Your task to perform on an android device: Go to accessibility settings Image 0: 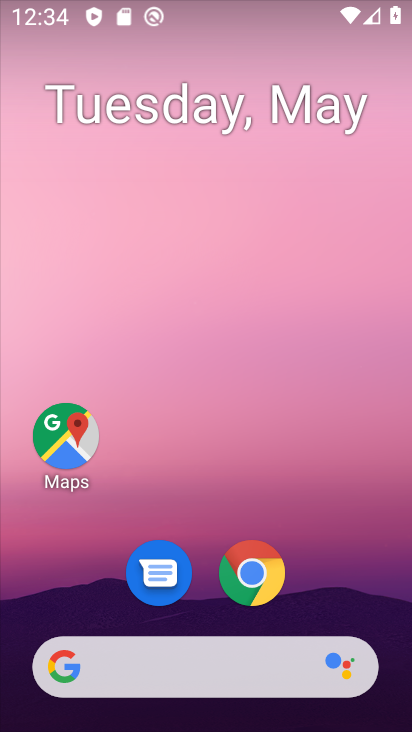
Step 0: drag from (341, 481) to (278, 80)
Your task to perform on an android device: Go to accessibility settings Image 1: 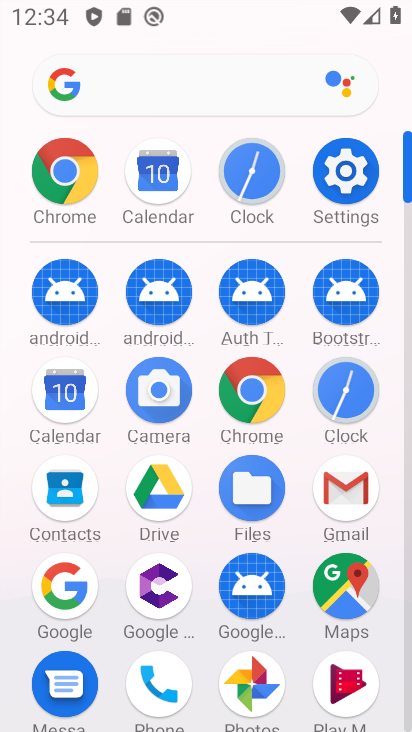
Step 1: click (357, 177)
Your task to perform on an android device: Go to accessibility settings Image 2: 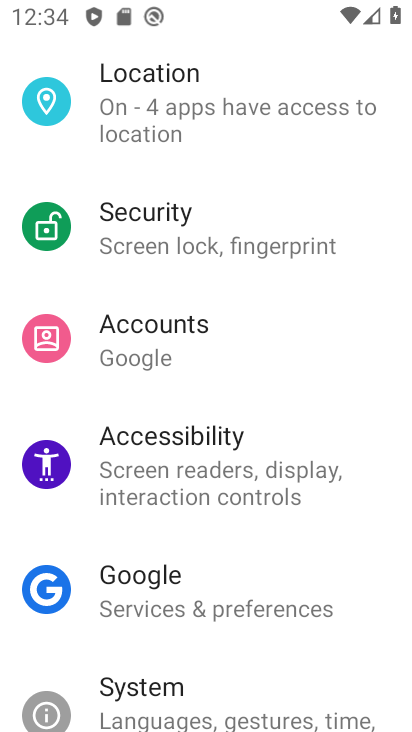
Step 2: click (146, 470)
Your task to perform on an android device: Go to accessibility settings Image 3: 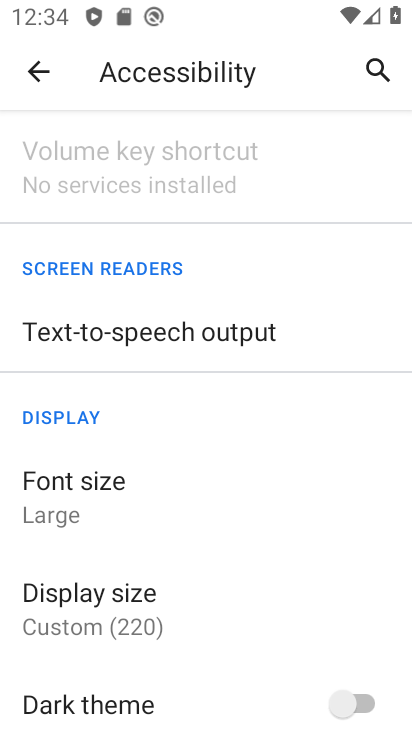
Step 3: task complete